Your task to perform on an android device: Add usb-c to usb-a to the cart on bestbuy, then select checkout. Image 0: 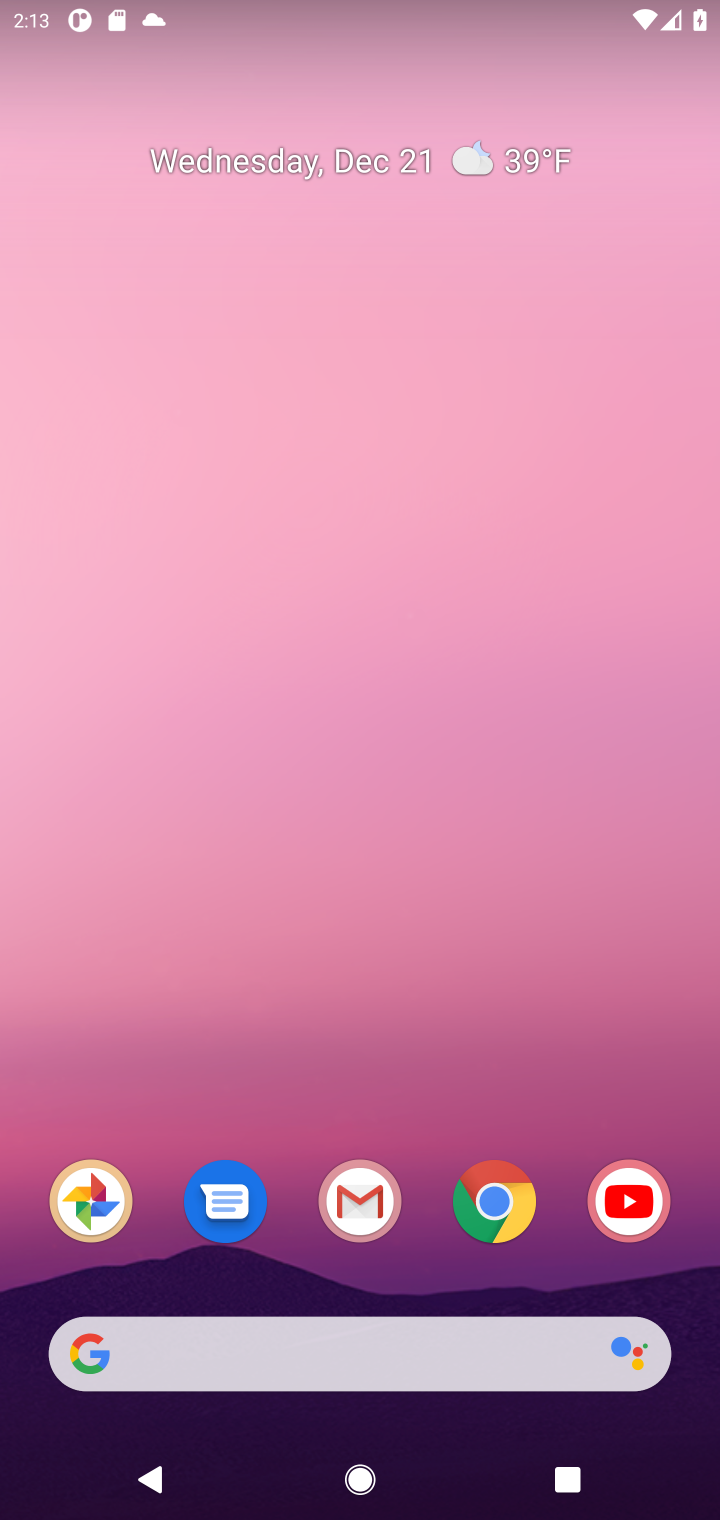
Step 0: click (483, 1216)
Your task to perform on an android device: Add usb-c to usb-a to the cart on bestbuy, then select checkout. Image 1: 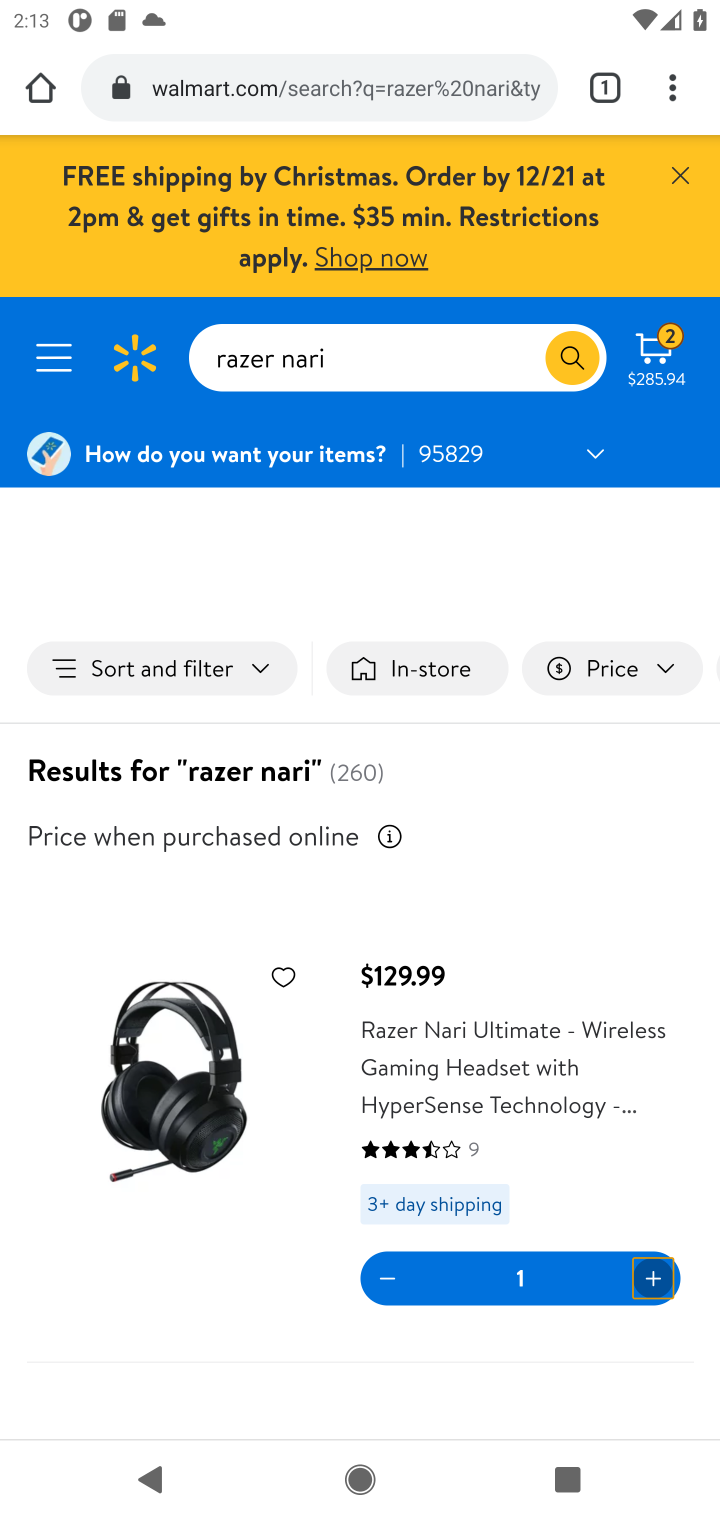
Step 1: click (281, 93)
Your task to perform on an android device: Add usb-c to usb-a to the cart on bestbuy, then select checkout. Image 2: 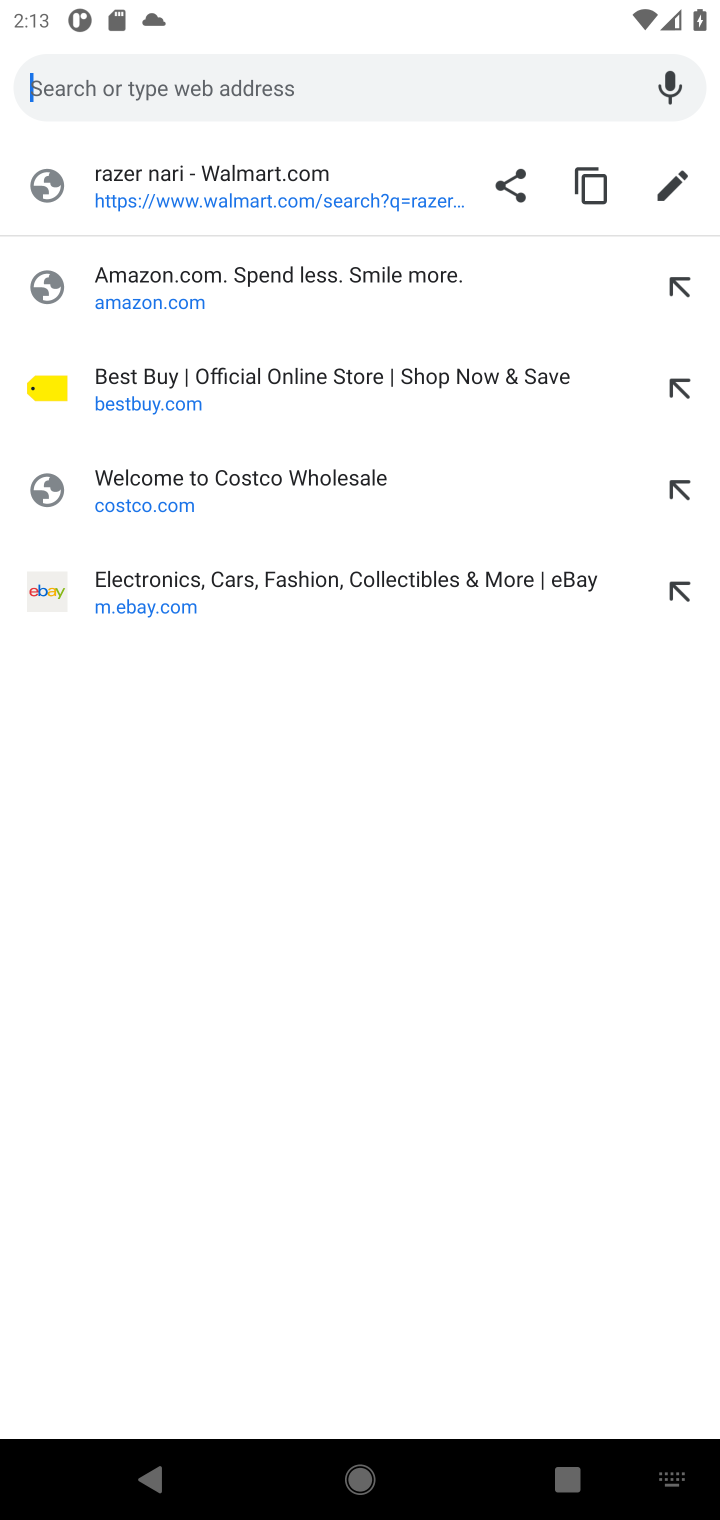
Step 2: click (161, 384)
Your task to perform on an android device: Add usb-c to usb-a to the cart on bestbuy, then select checkout. Image 3: 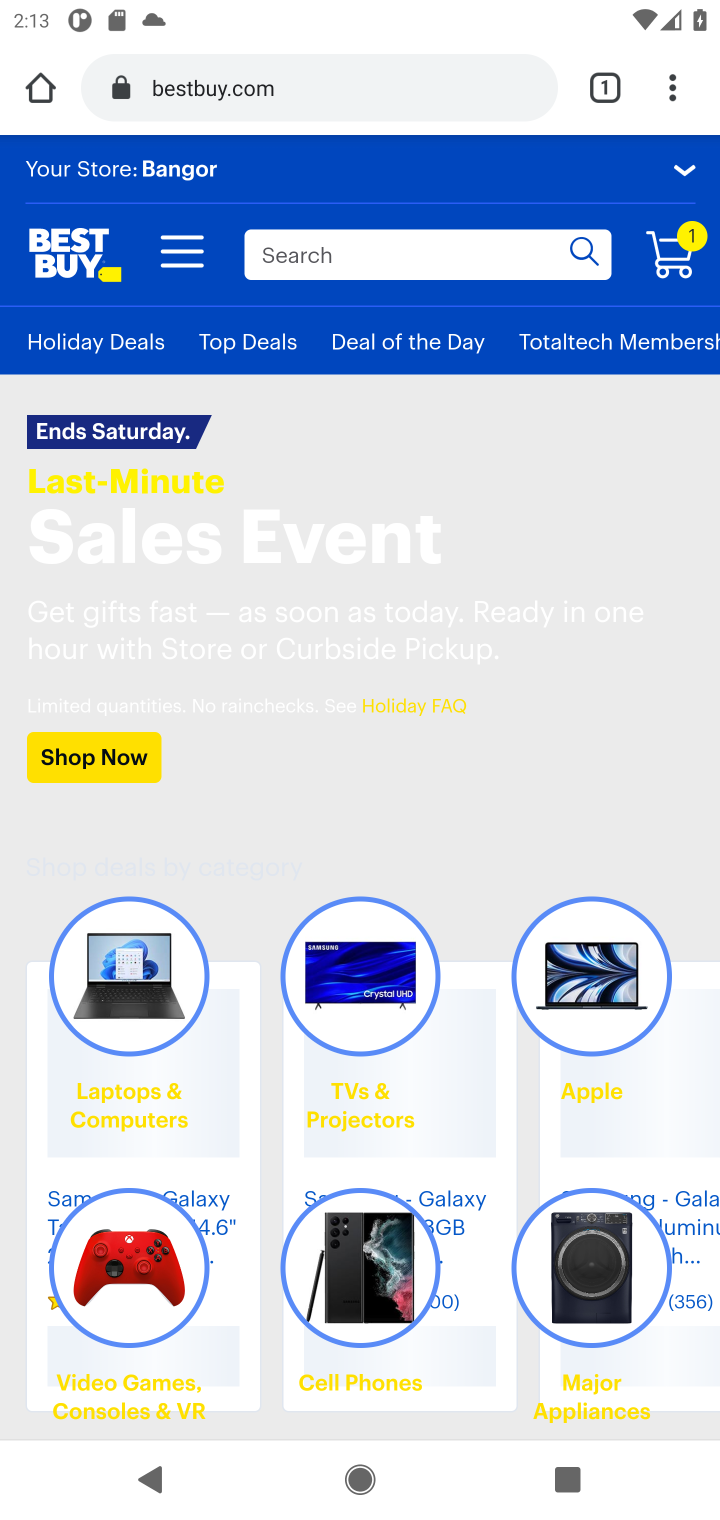
Step 3: click (326, 265)
Your task to perform on an android device: Add usb-c to usb-a to the cart on bestbuy, then select checkout. Image 4: 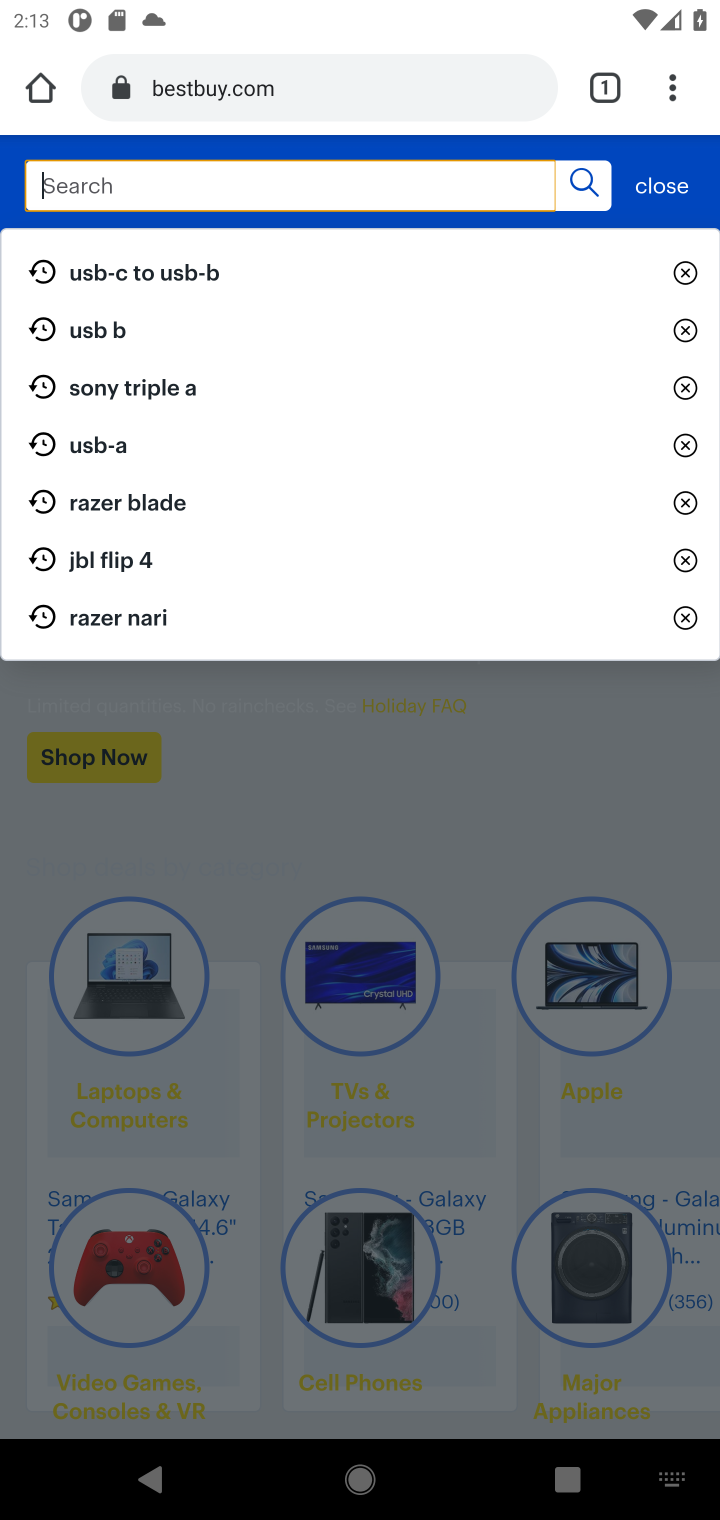
Step 4: type "usb-c to usb-a"
Your task to perform on an android device: Add usb-c to usb-a to the cart on bestbuy, then select checkout. Image 5: 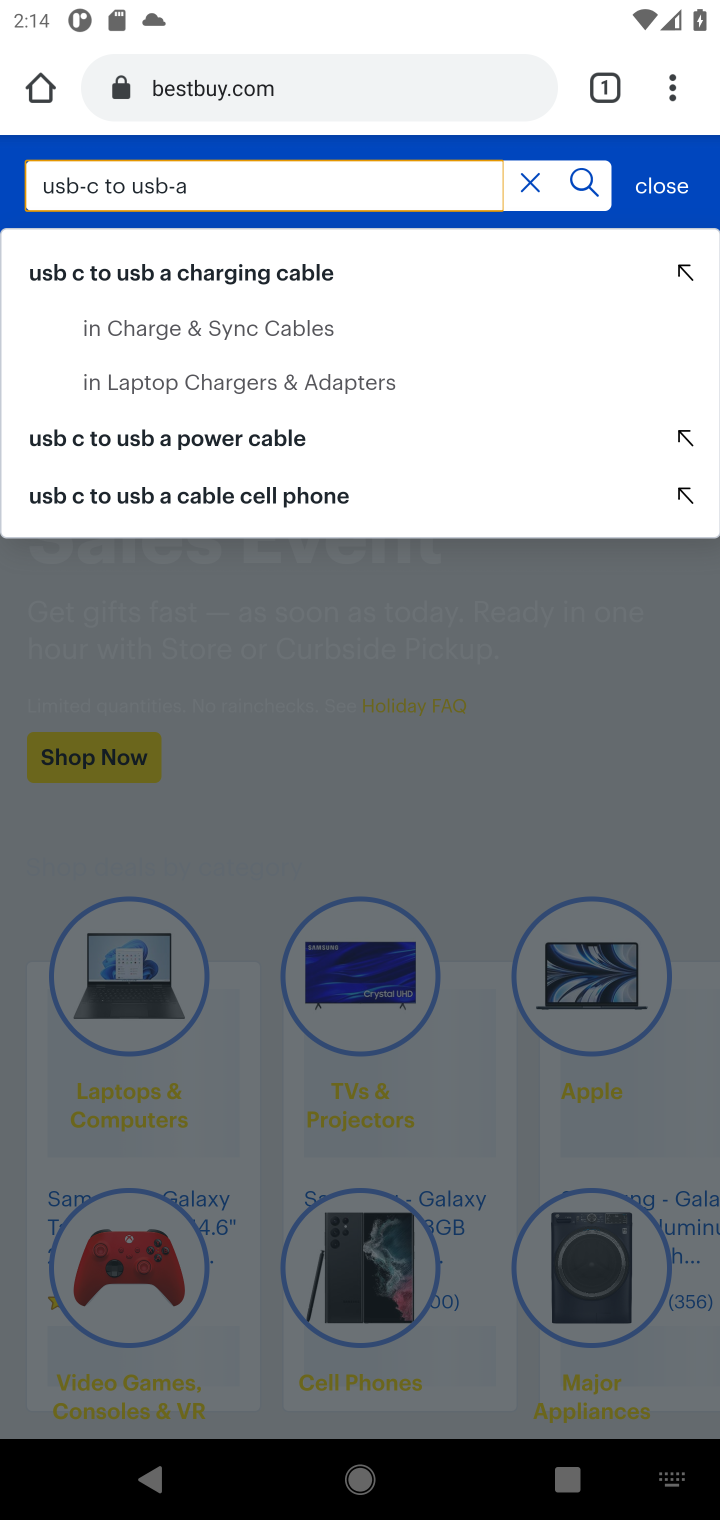
Step 5: click (587, 189)
Your task to perform on an android device: Add usb-c to usb-a to the cart on bestbuy, then select checkout. Image 6: 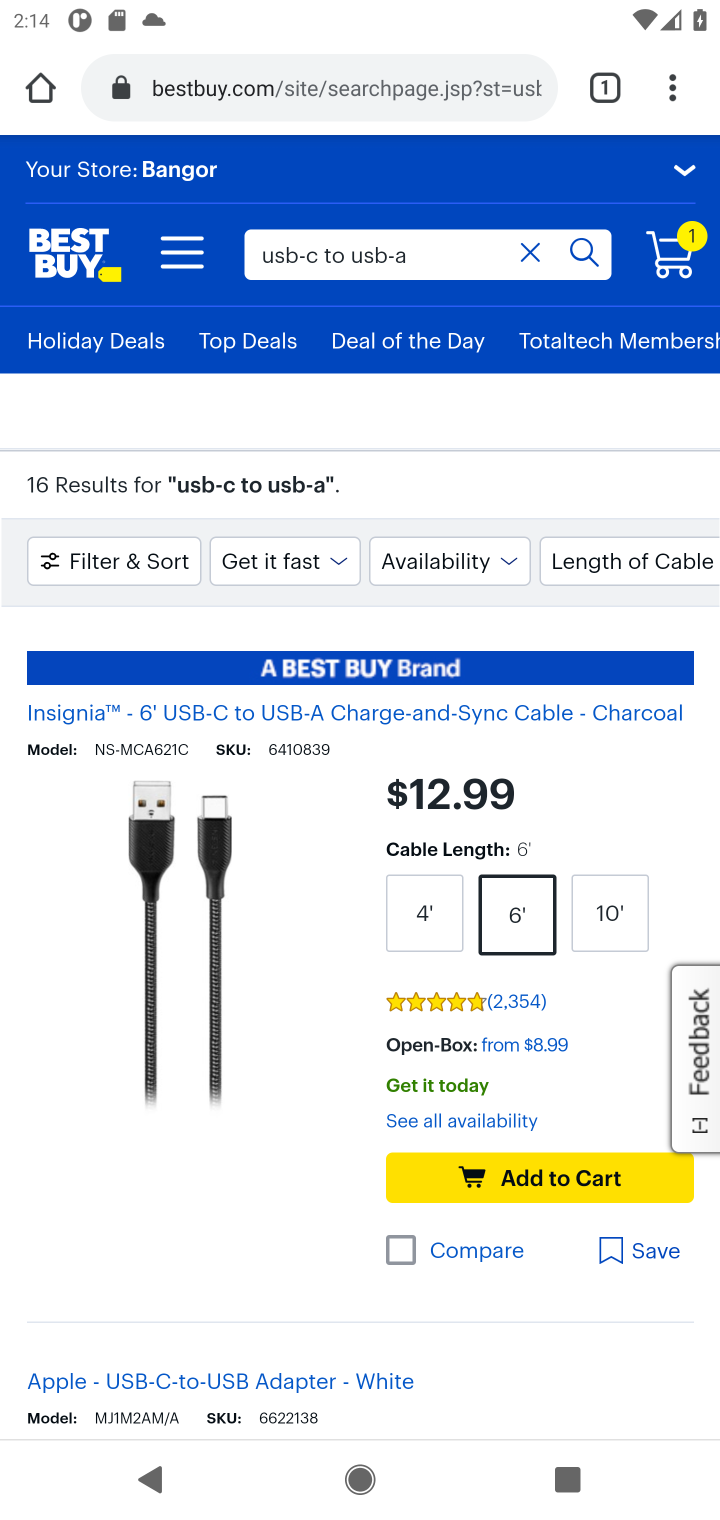
Step 6: click (490, 1180)
Your task to perform on an android device: Add usb-c to usb-a to the cart on bestbuy, then select checkout. Image 7: 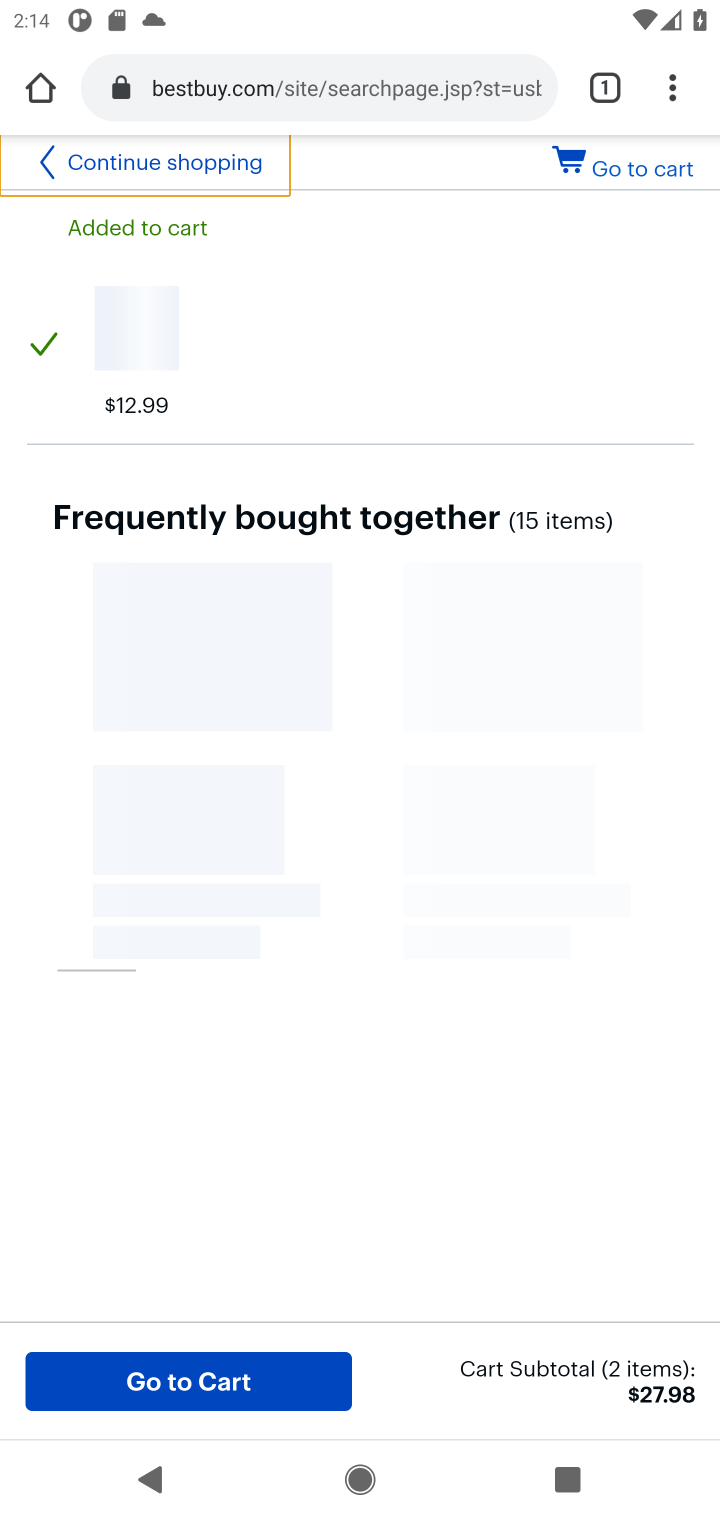
Step 7: click (632, 170)
Your task to perform on an android device: Add usb-c to usb-a to the cart on bestbuy, then select checkout. Image 8: 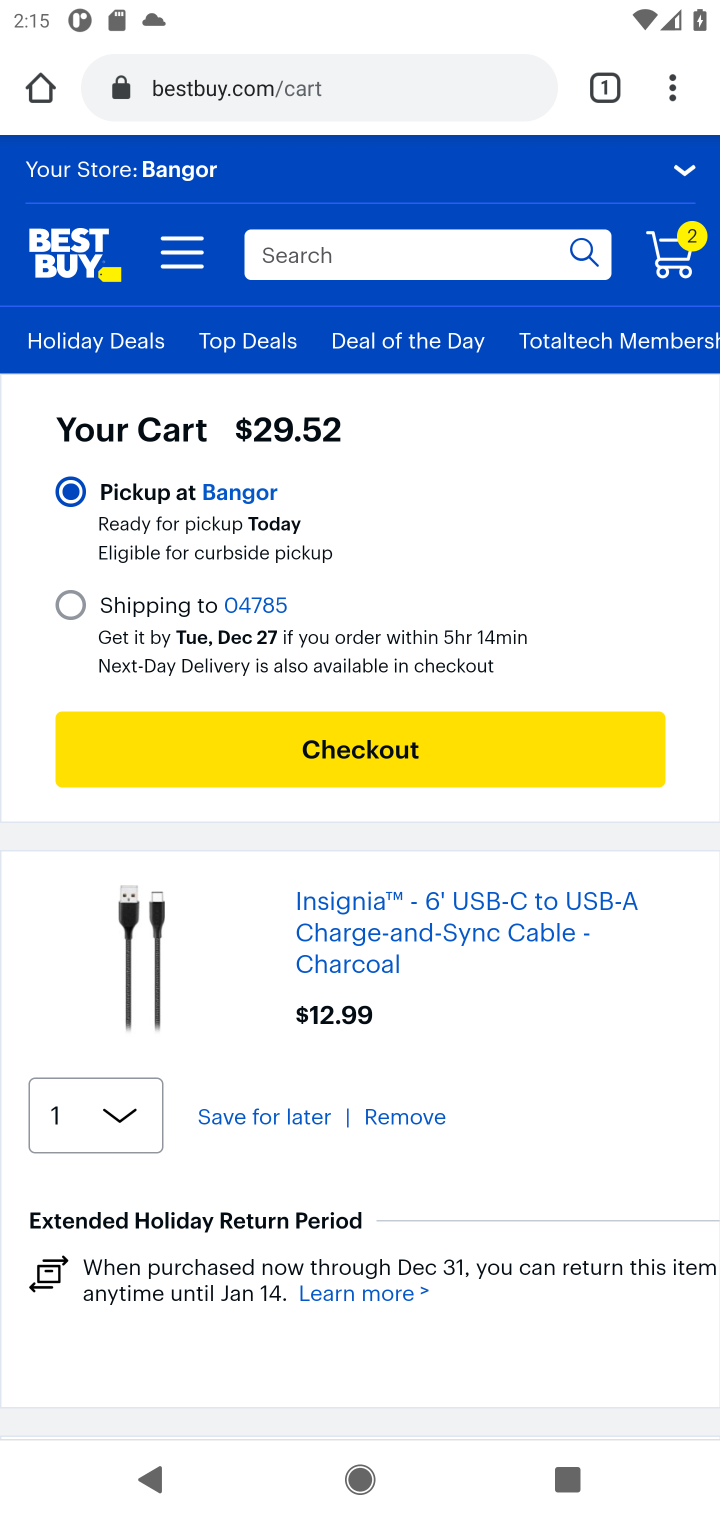
Step 8: click (383, 738)
Your task to perform on an android device: Add usb-c to usb-a to the cart on bestbuy, then select checkout. Image 9: 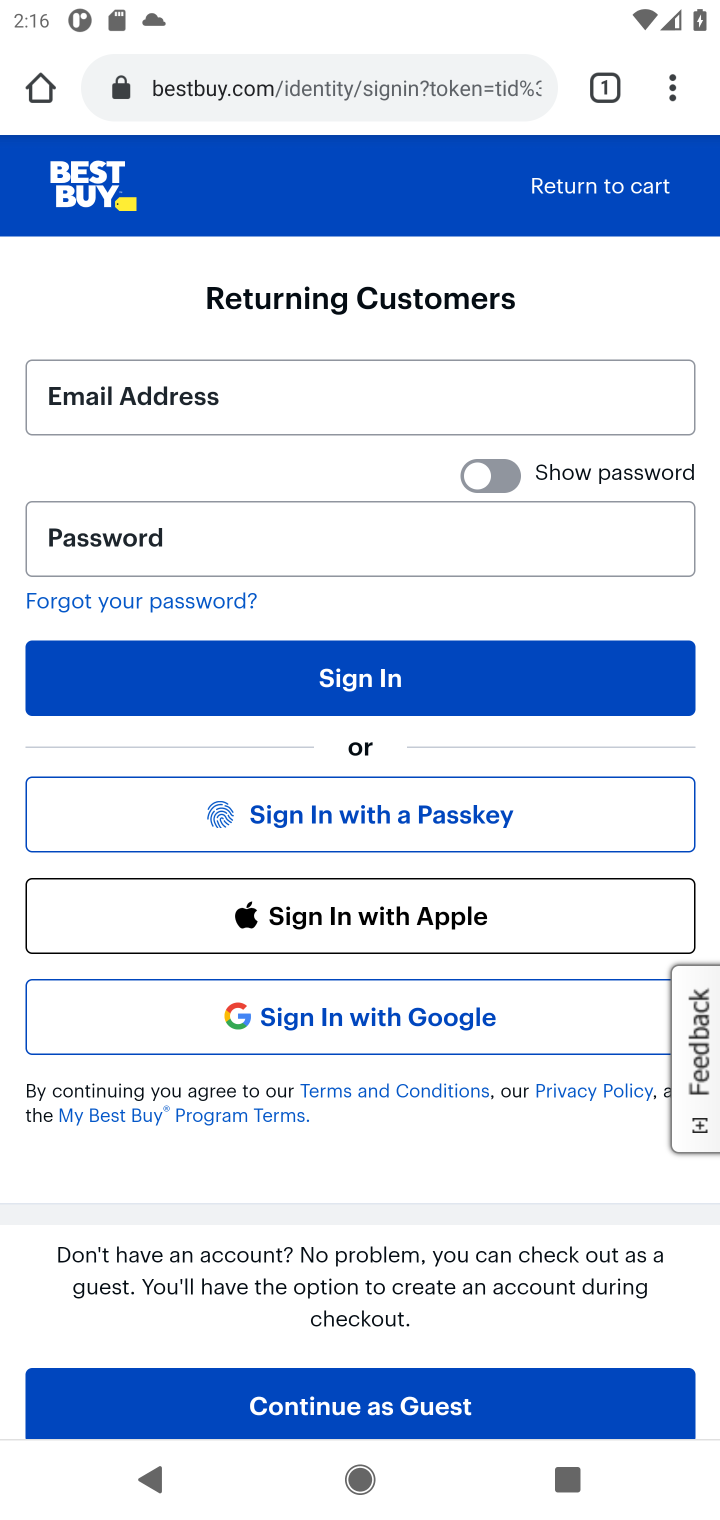
Step 9: task complete